Your task to perform on an android device: Toggle the flashlight Image 0: 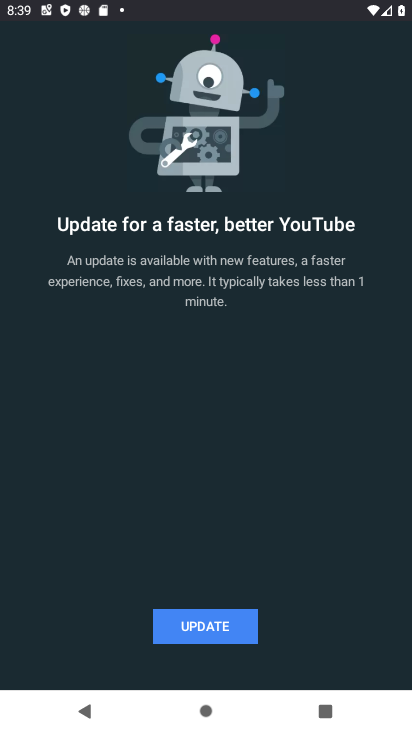
Step 0: press home button
Your task to perform on an android device: Toggle the flashlight Image 1: 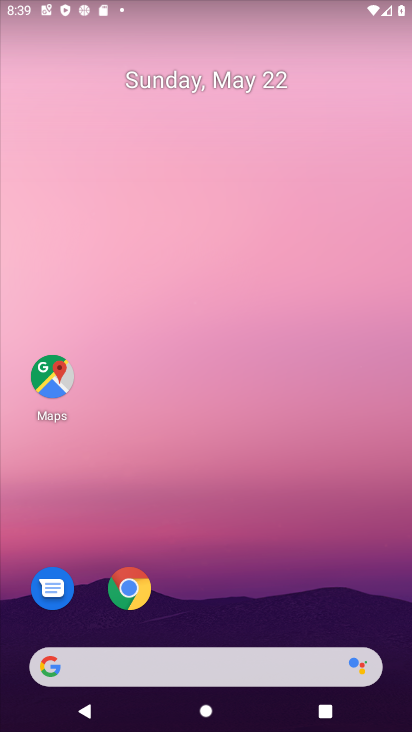
Step 1: drag from (245, 464) to (193, 107)
Your task to perform on an android device: Toggle the flashlight Image 2: 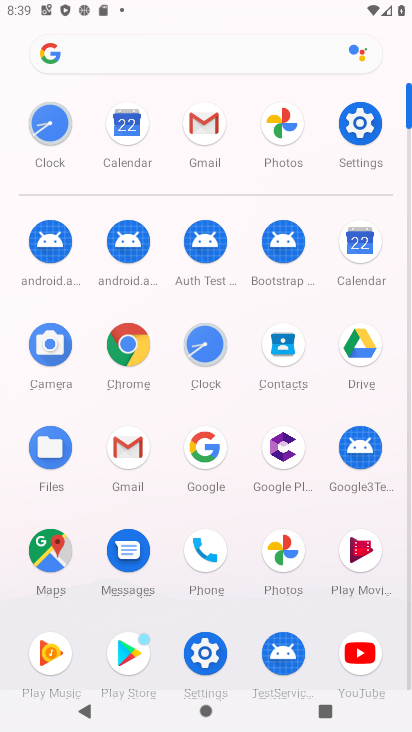
Step 2: click (361, 122)
Your task to perform on an android device: Toggle the flashlight Image 3: 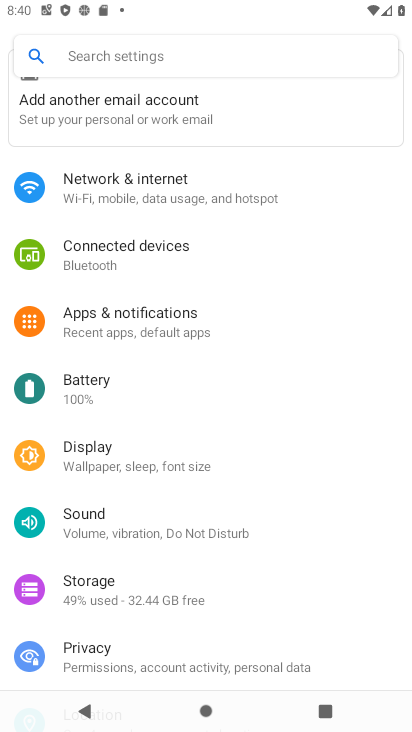
Step 3: click (90, 450)
Your task to perform on an android device: Toggle the flashlight Image 4: 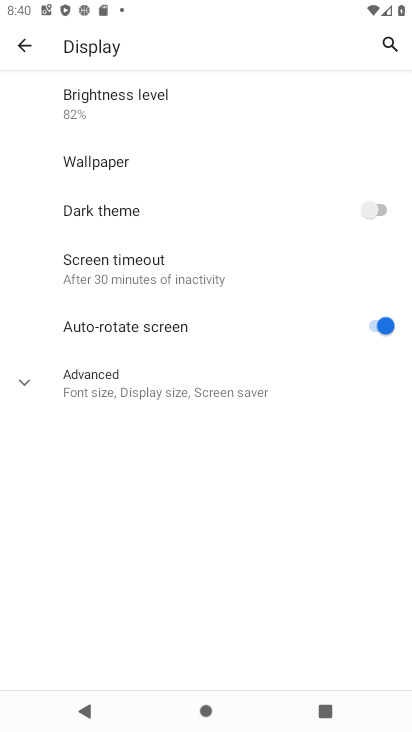
Step 4: task complete